Your task to perform on an android device: Go to privacy settings Image 0: 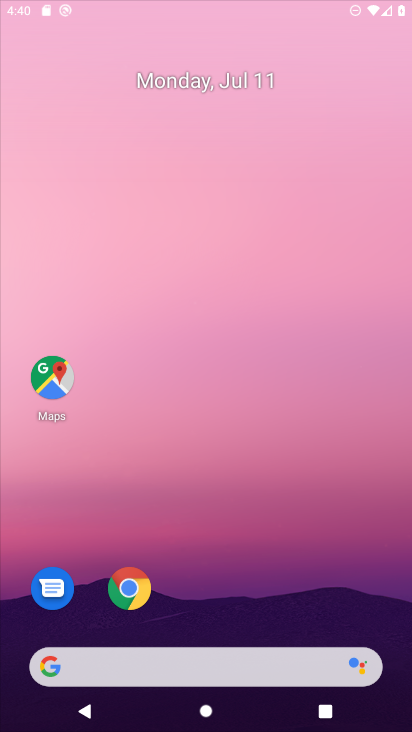
Step 0: press home button
Your task to perform on an android device: Go to privacy settings Image 1: 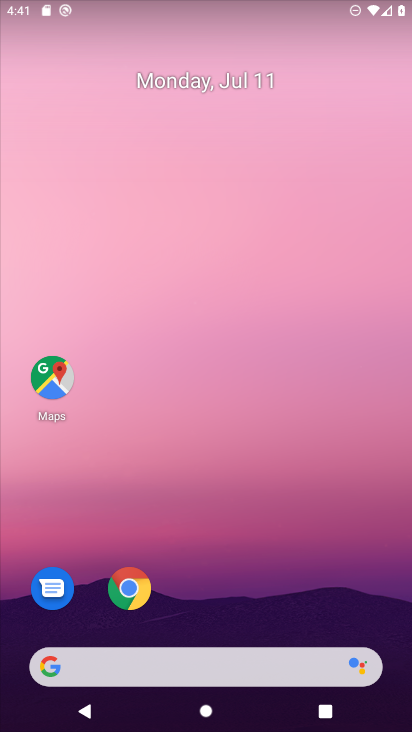
Step 1: drag from (216, 627) to (285, 61)
Your task to perform on an android device: Go to privacy settings Image 2: 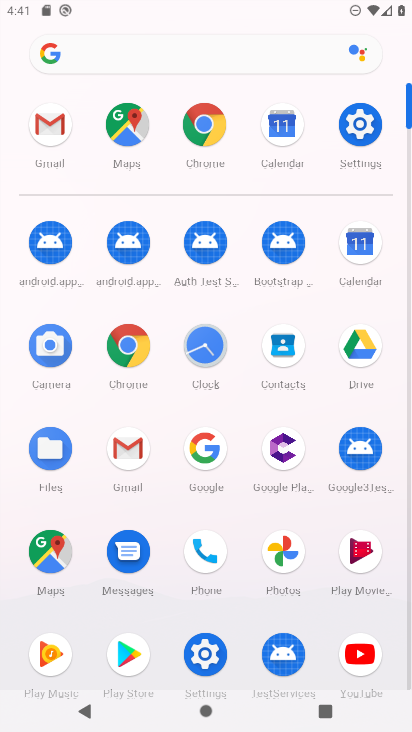
Step 2: click (365, 130)
Your task to perform on an android device: Go to privacy settings Image 3: 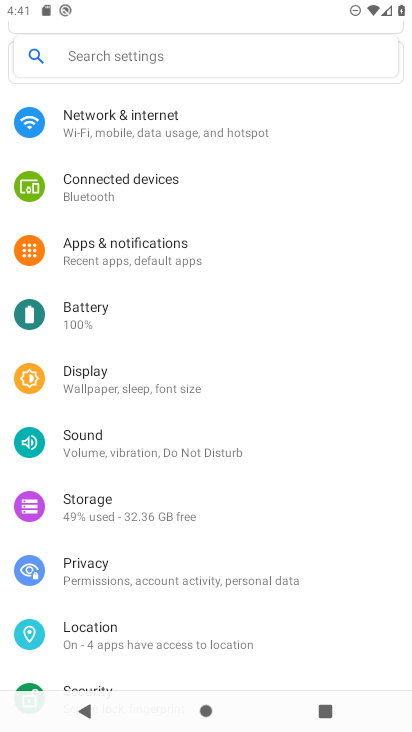
Step 3: click (91, 564)
Your task to perform on an android device: Go to privacy settings Image 4: 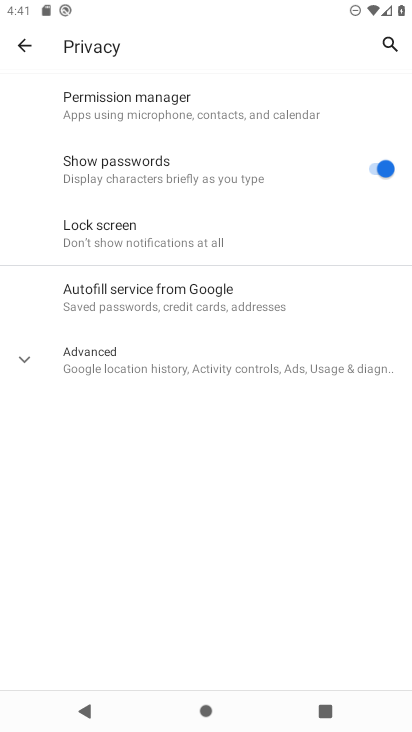
Step 4: task complete